Your task to perform on an android device: Open ESPN.com Image 0: 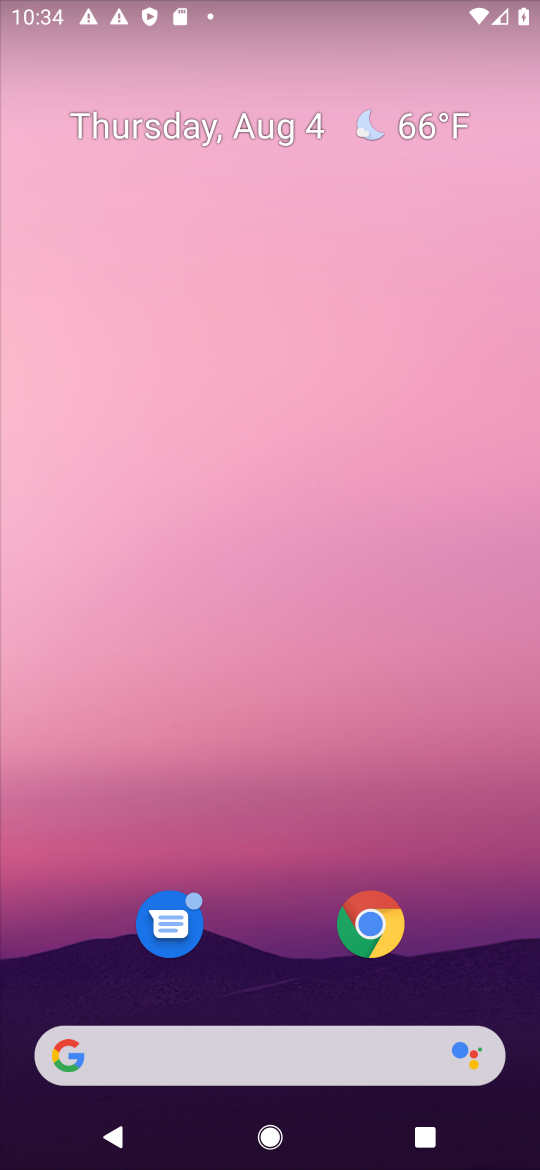
Step 0: press home button
Your task to perform on an android device: Open ESPN.com Image 1: 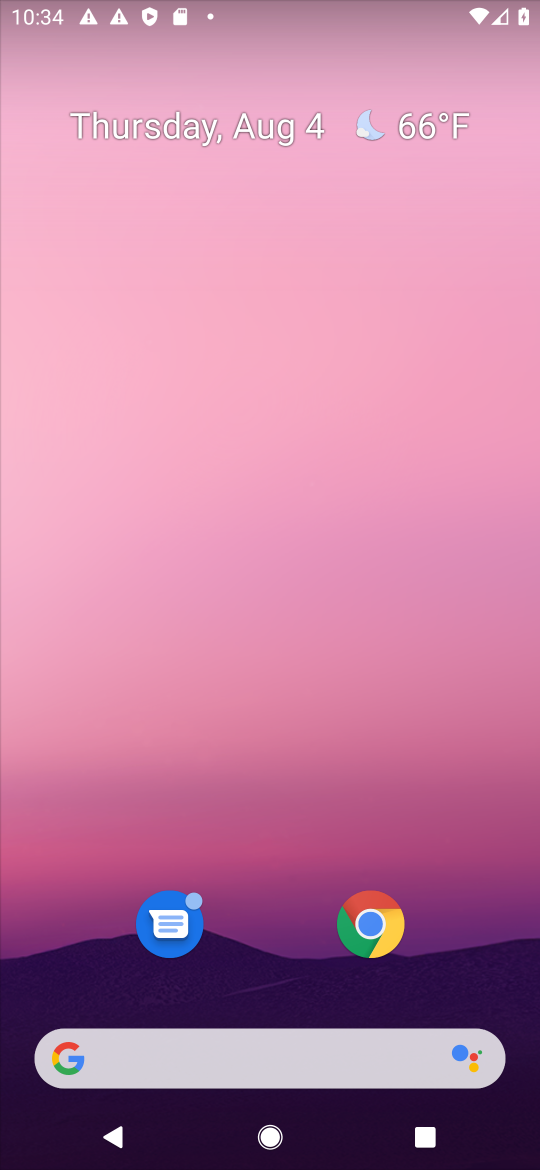
Step 1: click (381, 938)
Your task to perform on an android device: Open ESPN.com Image 2: 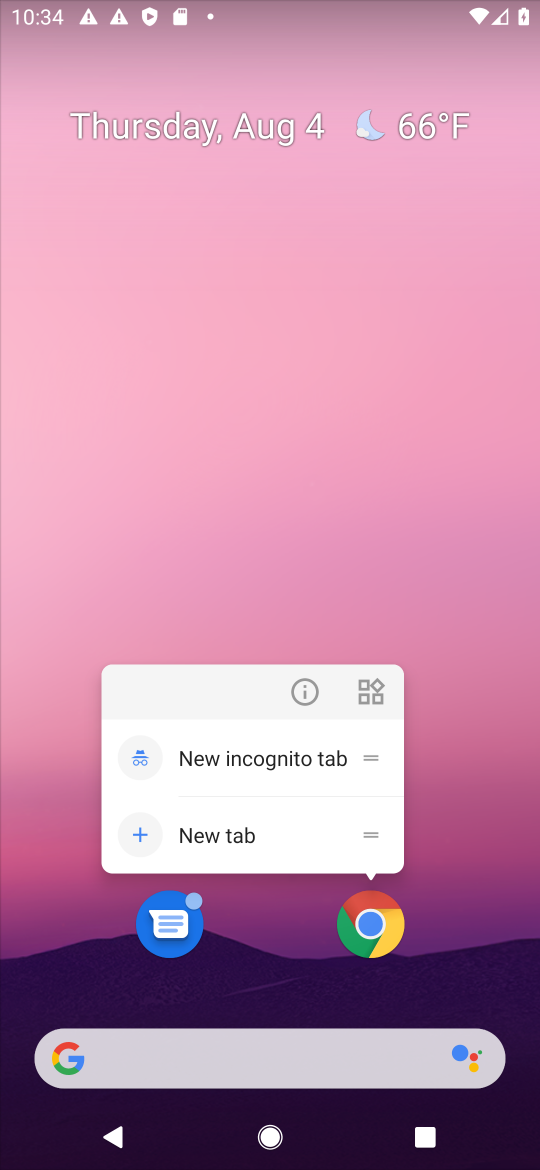
Step 2: click (381, 938)
Your task to perform on an android device: Open ESPN.com Image 3: 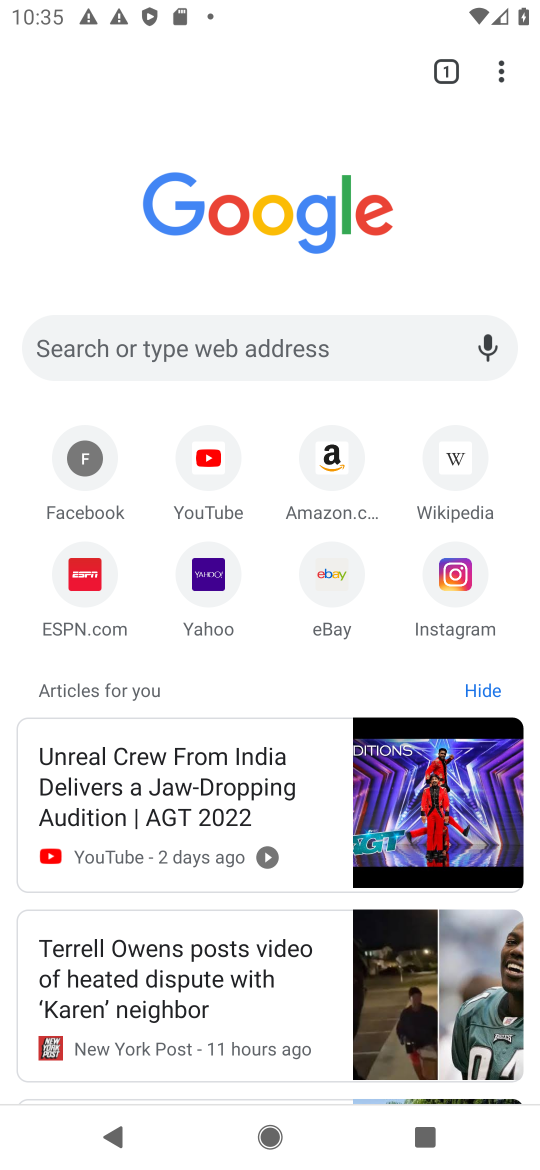
Step 3: click (98, 587)
Your task to perform on an android device: Open ESPN.com Image 4: 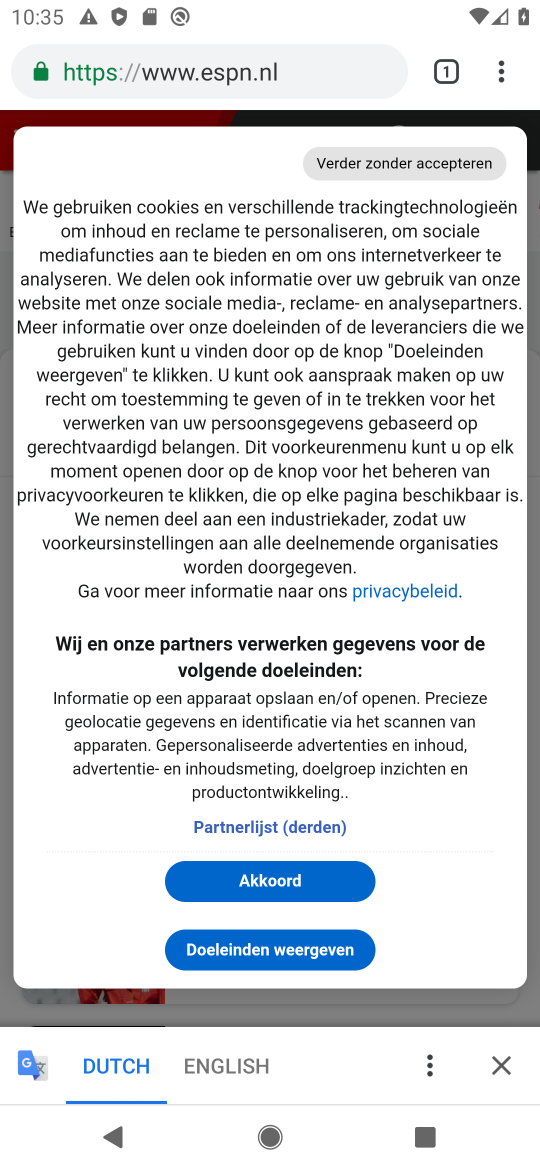
Step 4: click (221, 1065)
Your task to perform on an android device: Open ESPN.com Image 5: 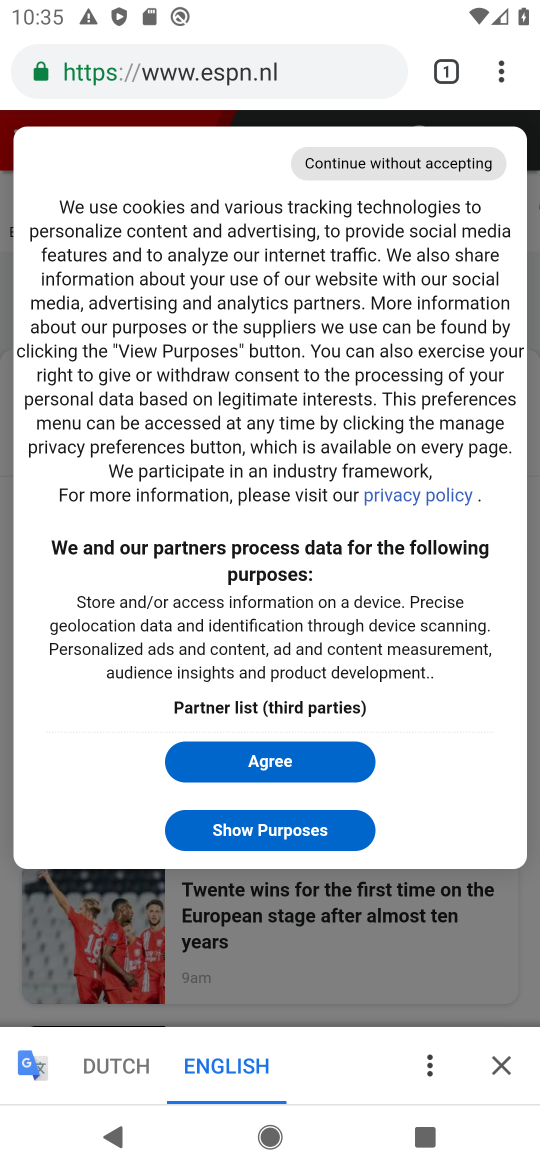
Step 5: click (300, 764)
Your task to perform on an android device: Open ESPN.com Image 6: 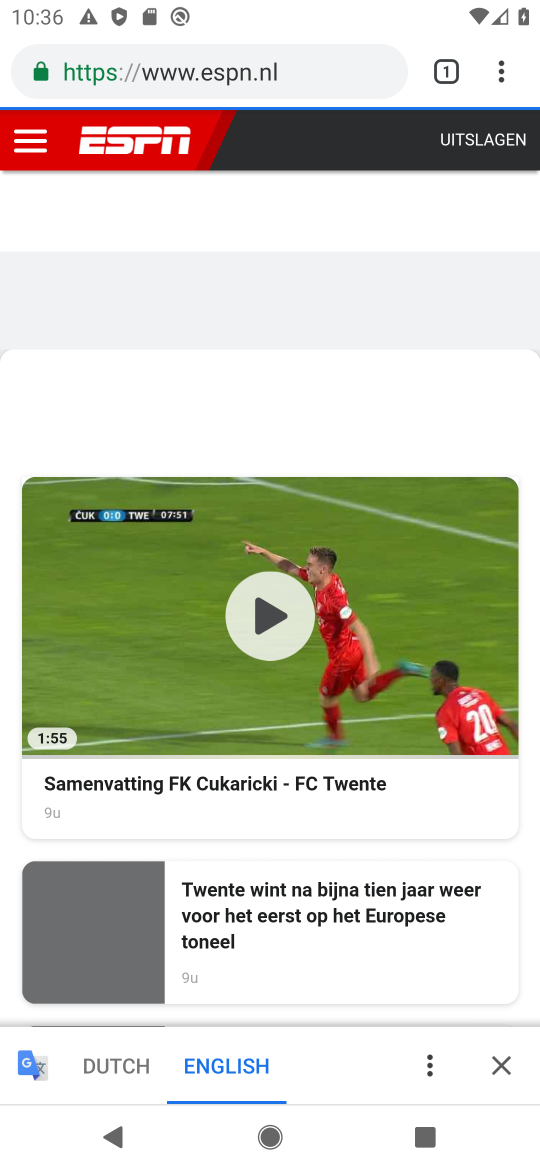
Step 6: task complete